Your task to perform on an android device: turn notification dots off Image 0: 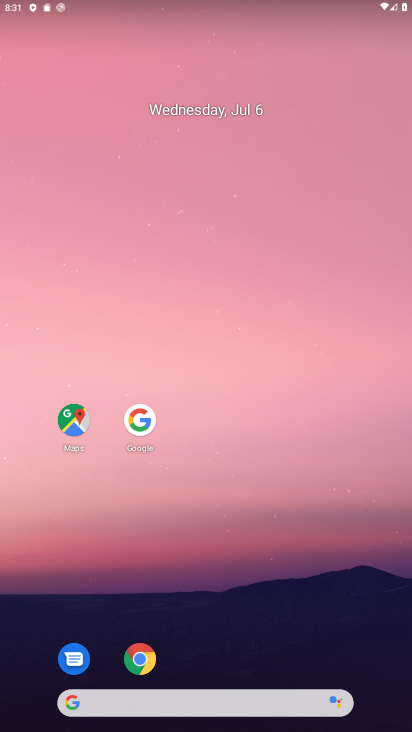
Step 0: drag from (243, 583) to (225, 194)
Your task to perform on an android device: turn notification dots off Image 1: 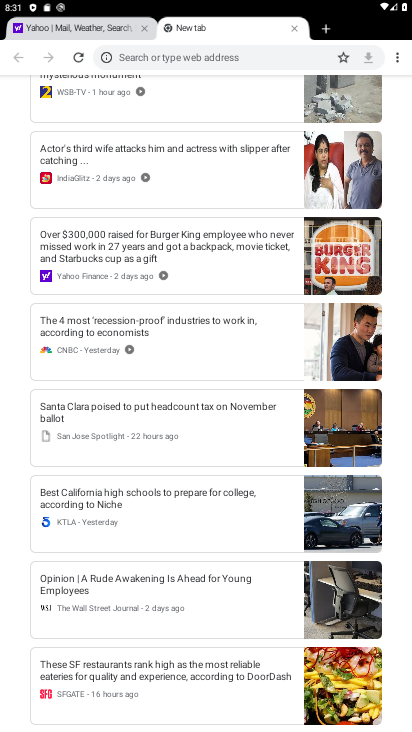
Step 1: press home button
Your task to perform on an android device: turn notification dots off Image 2: 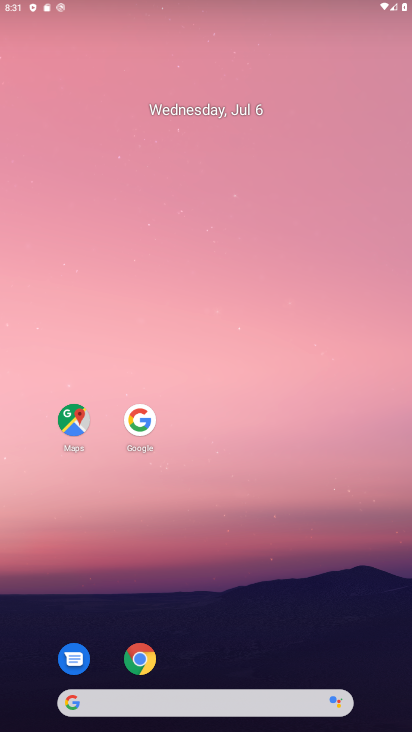
Step 2: drag from (247, 673) to (241, 152)
Your task to perform on an android device: turn notification dots off Image 3: 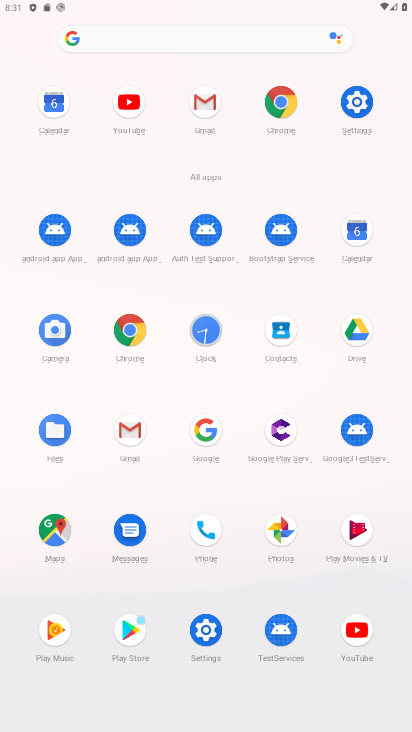
Step 3: click (355, 107)
Your task to perform on an android device: turn notification dots off Image 4: 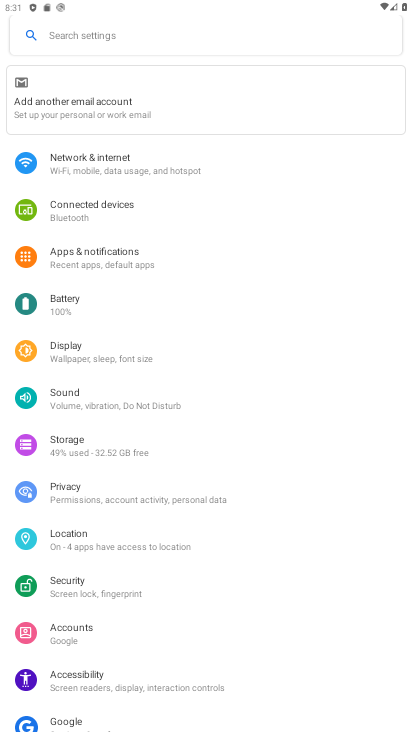
Step 4: click (92, 262)
Your task to perform on an android device: turn notification dots off Image 5: 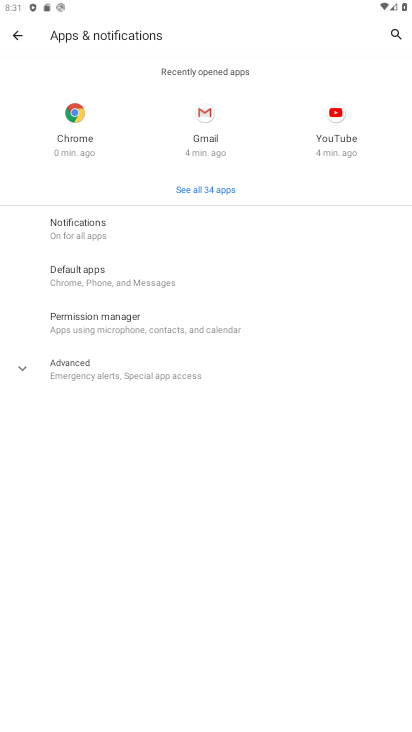
Step 5: click (67, 230)
Your task to perform on an android device: turn notification dots off Image 6: 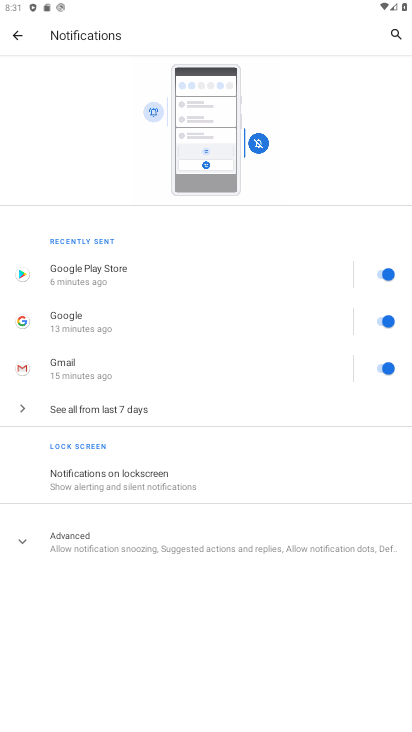
Step 6: click (80, 543)
Your task to perform on an android device: turn notification dots off Image 7: 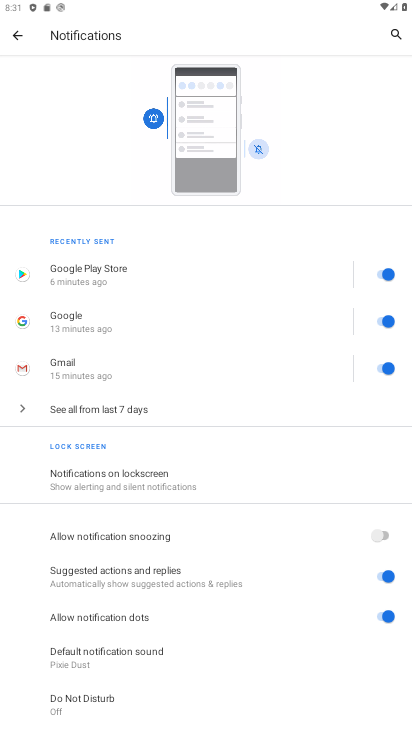
Step 7: drag from (181, 692) to (118, 351)
Your task to perform on an android device: turn notification dots off Image 8: 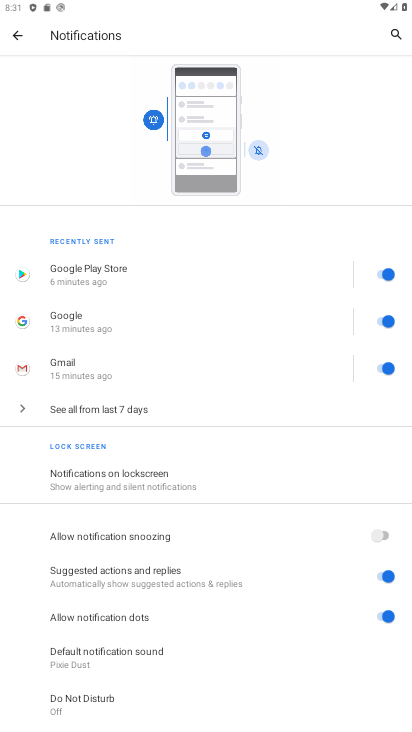
Step 8: click (388, 615)
Your task to perform on an android device: turn notification dots off Image 9: 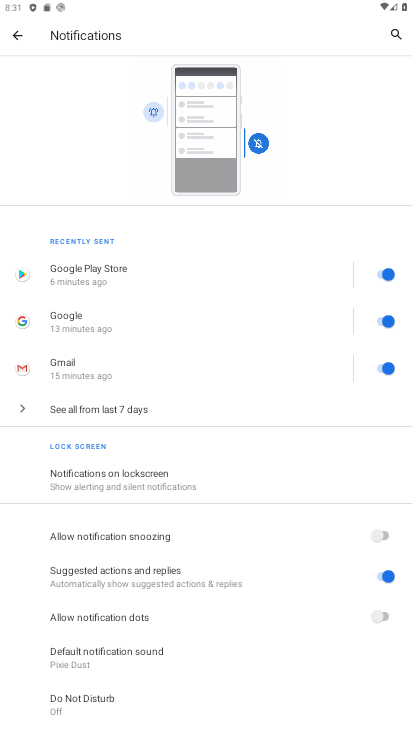
Step 9: task complete